Your task to perform on an android device: Turn off the flashlight Image 0: 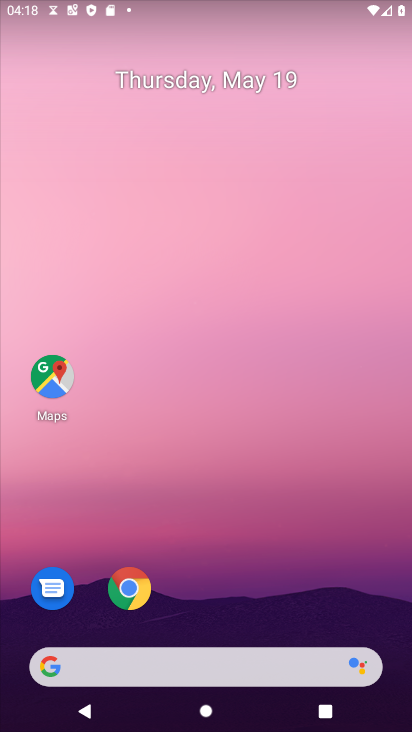
Step 0: drag from (204, 595) to (219, 150)
Your task to perform on an android device: Turn off the flashlight Image 1: 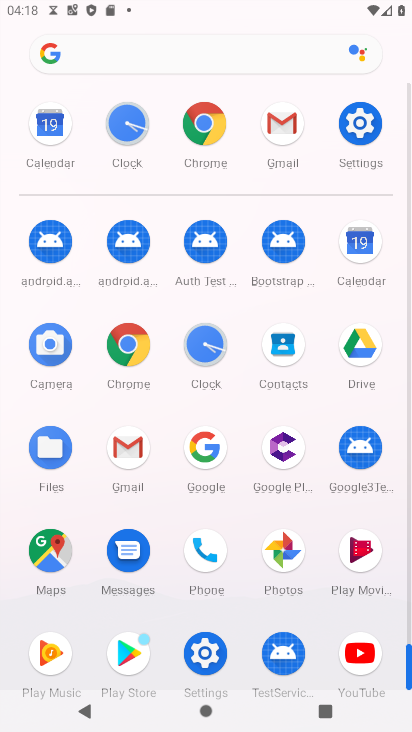
Step 1: click (209, 663)
Your task to perform on an android device: Turn off the flashlight Image 2: 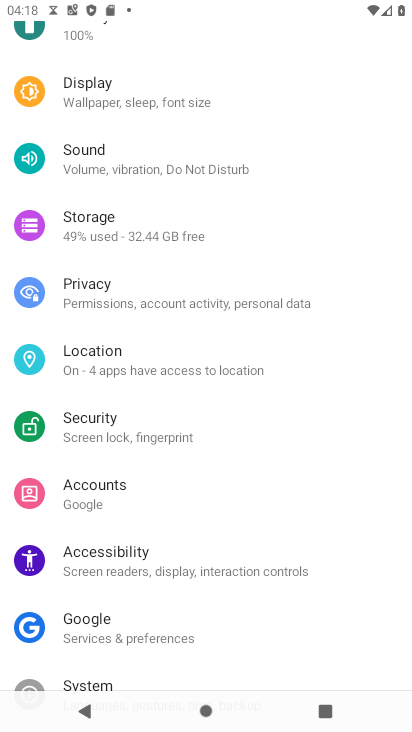
Step 2: drag from (257, 131) to (246, 336)
Your task to perform on an android device: Turn off the flashlight Image 3: 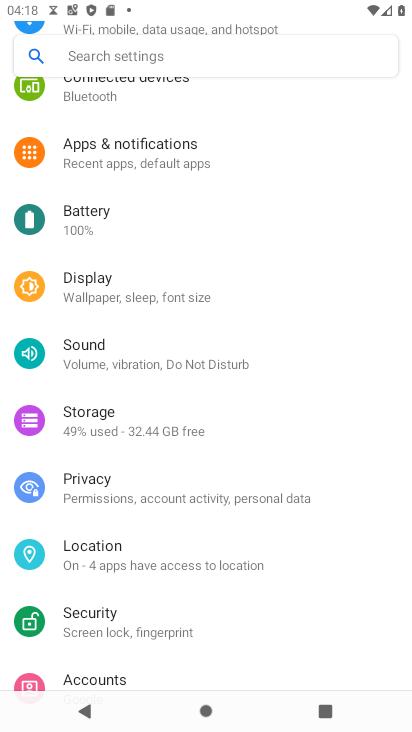
Step 3: click (213, 60)
Your task to perform on an android device: Turn off the flashlight Image 4: 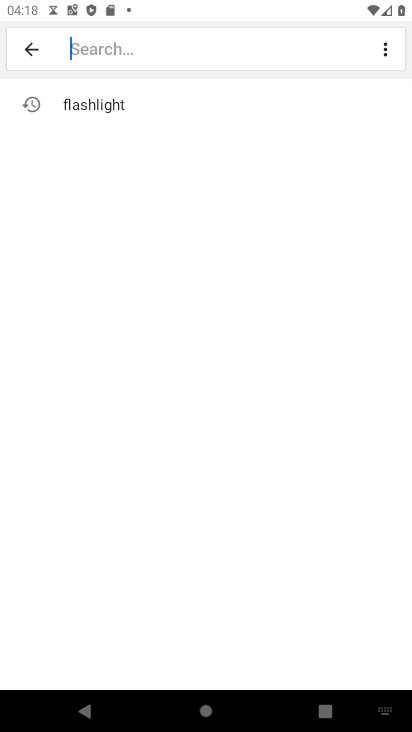
Step 4: type "flashlight"
Your task to perform on an android device: Turn off the flashlight Image 5: 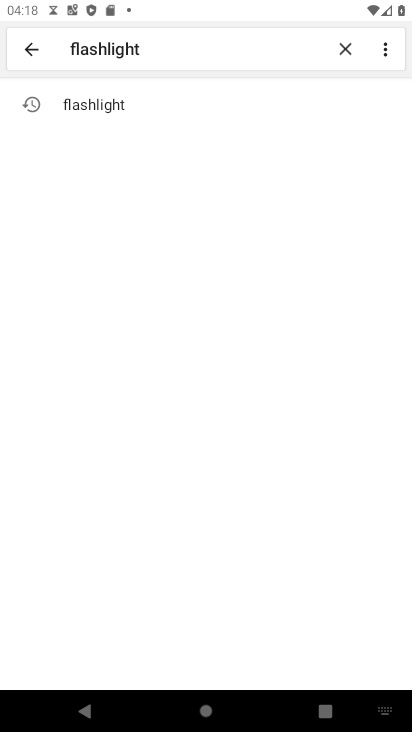
Step 5: click (90, 101)
Your task to perform on an android device: Turn off the flashlight Image 6: 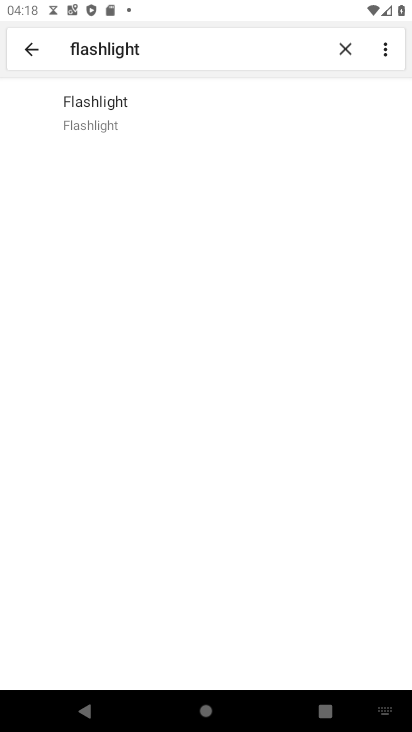
Step 6: click (66, 106)
Your task to perform on an android device: Turn off the flashlight Image 7: 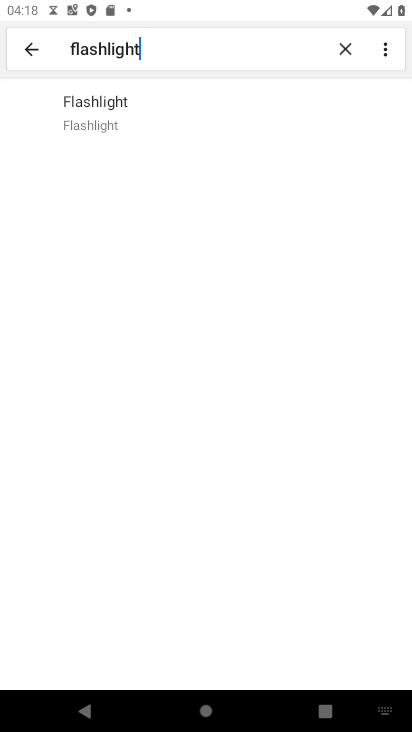
Step 7: task complete